Your task to perform on an android device: Check the weather Image 0: 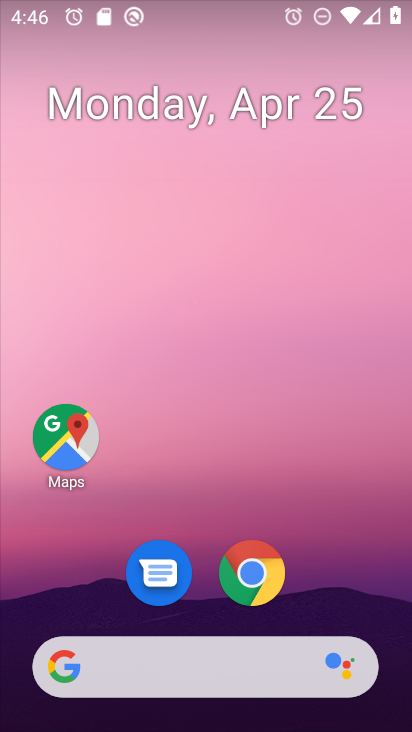
Step 0: click (95, 669)
Your task to perform on an android device: Check the weather Image 1: 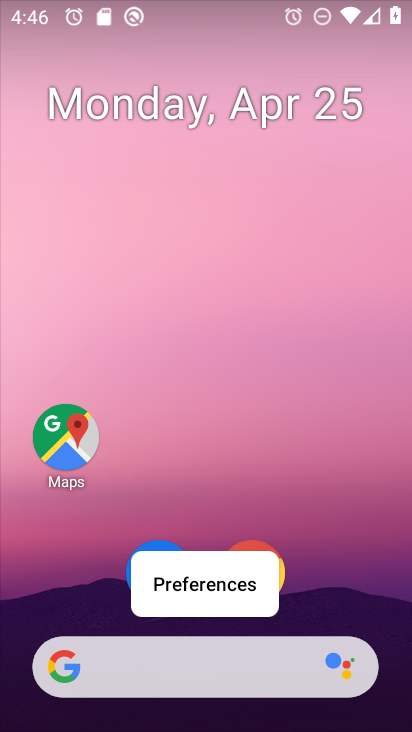
Step 1: click (108, 661)
Your task to perform on an android device: Check the weather Image 2: 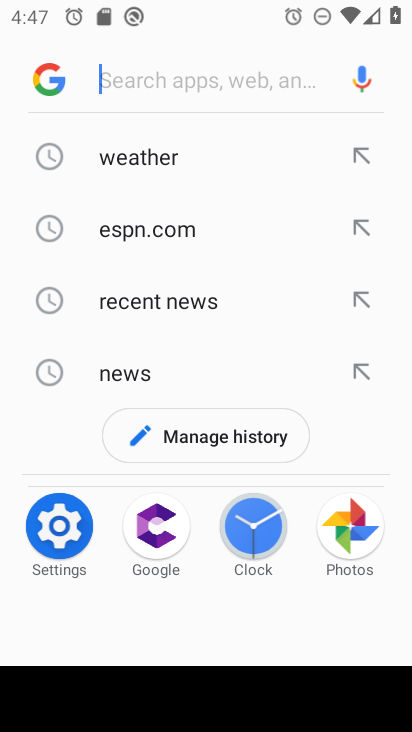
Step 2: click (136, 159)
Your task to perform on an android device: Check the weather Image 3: 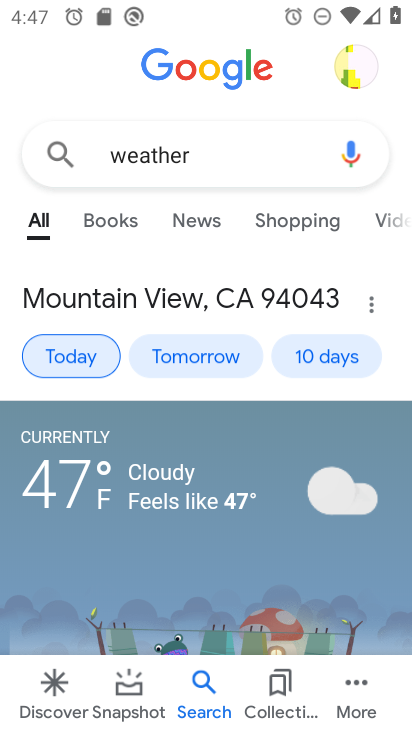
Step 3: task complete